Your task to perform on an android device: check out phone information Image 0: 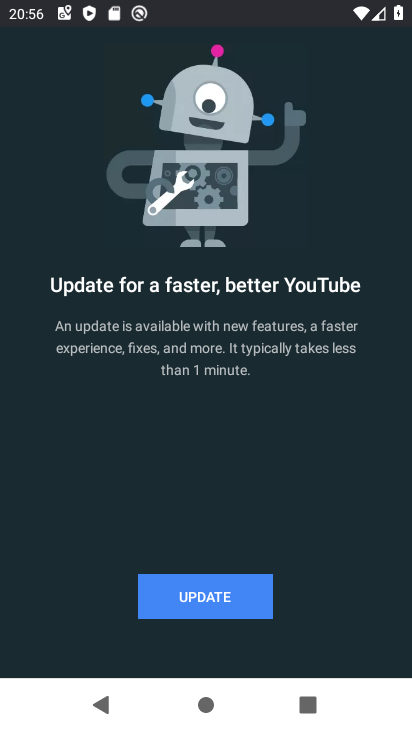
Step 0: press back button
Your task to perform on an android device: check out phone information Image 1: 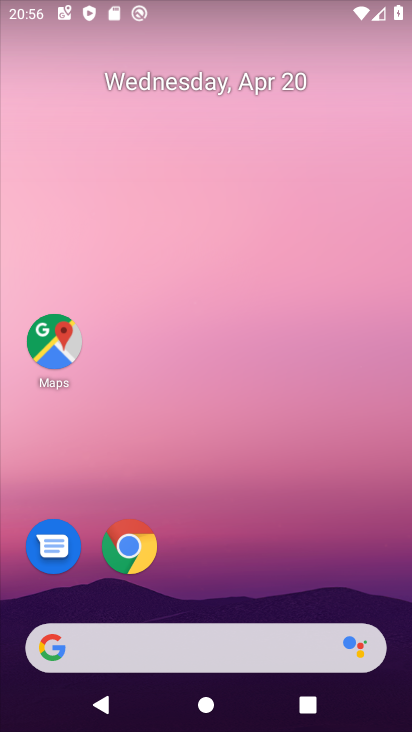
Step 1: drag from (276, 563) to (211, 24)
Your task to perform on an android device: check out phone information Image 2: 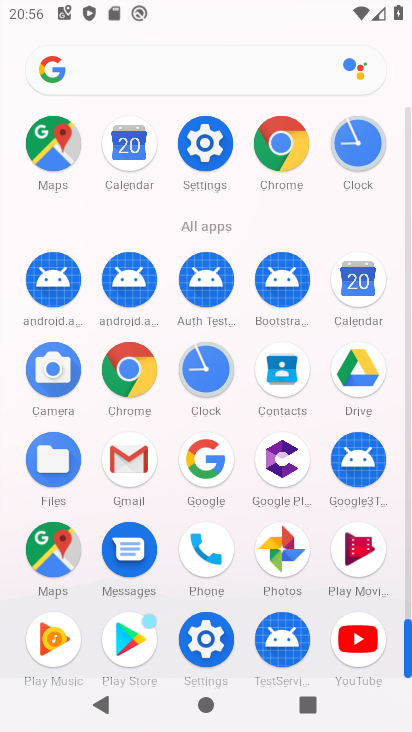
Step 2: click (196, 144)
Your task to perform on an android device: check out phone information Image 3: 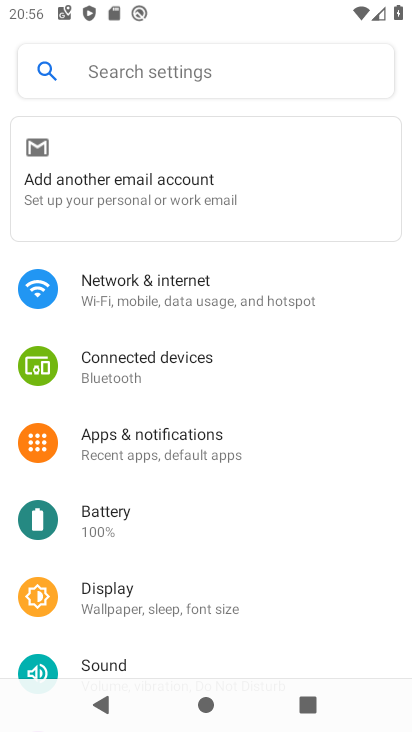
Step 3: drag from (231, 503) to (205, 34)
Your task to perform on an android device: check out phone information Image 4: 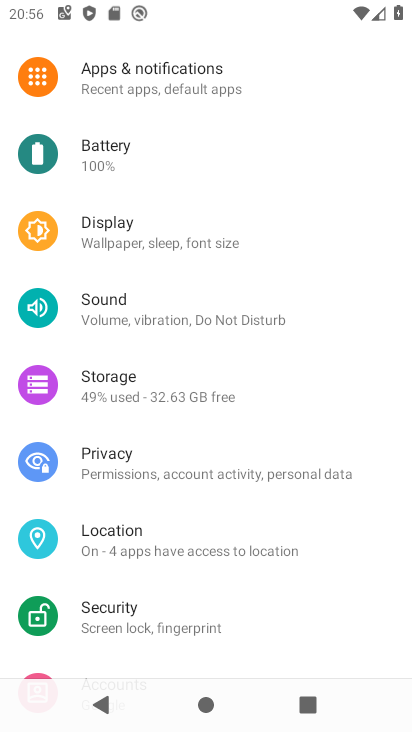
Step 4: drag from (195, 473) to (199, 24)
Your task to perform on an android device: check out phone information Image 5: 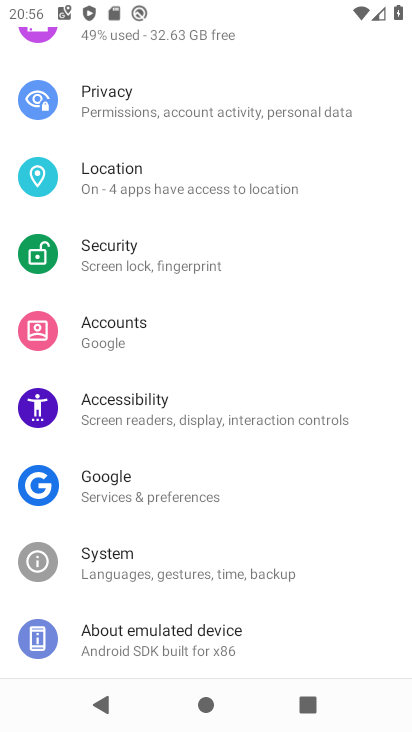
Step 5: drag from (212, 604) to (200, 201)
Your task to perform on an android device: check out phone information Image 6: 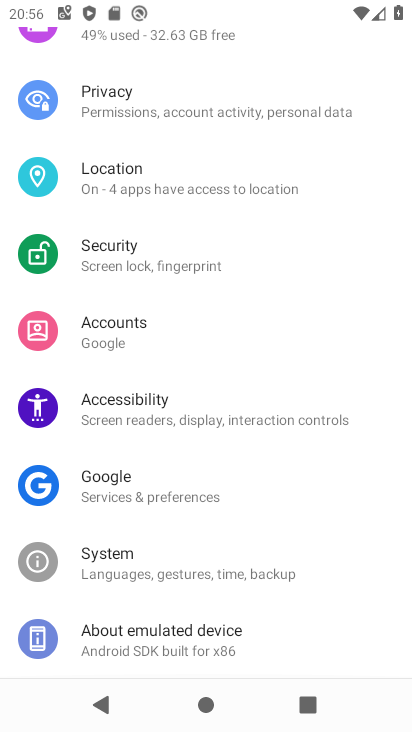
Step 6: click (177, 624)
Your task to perform on an android device: check out phone information Image 7: 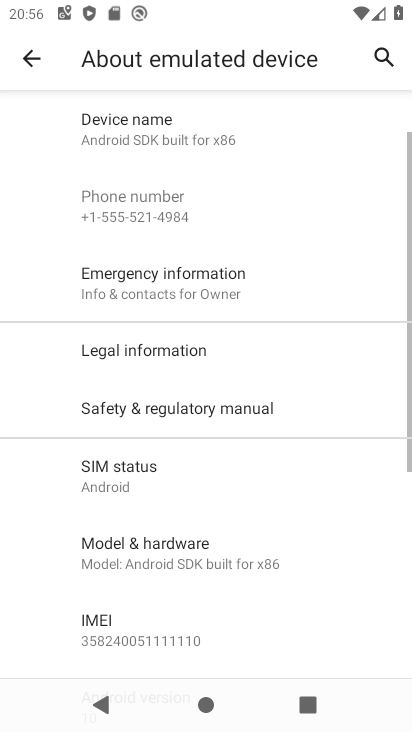
Step 7: task complete